Your task to perform on an android device: Do I have any events tomorrow? Image 0: 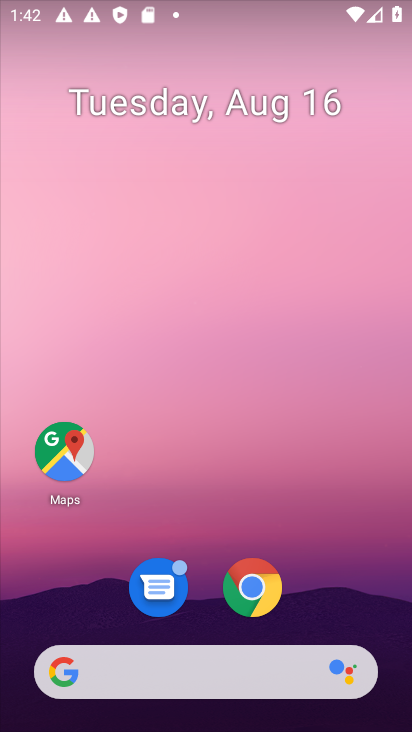
Step 0: drag from (200, 440) to (239, 2)
Your task to perform on an android device: Do I have any events tomorrow? Image 1: 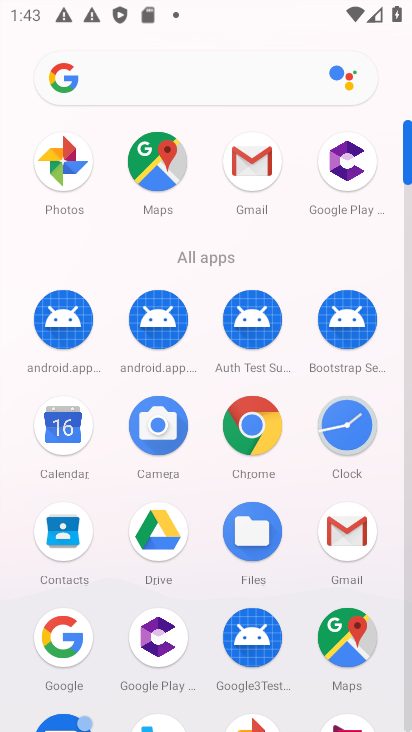
Step 1: click (74, 427)
Your task to perform on an android device: Do I have any events tomorrow? Image 2: 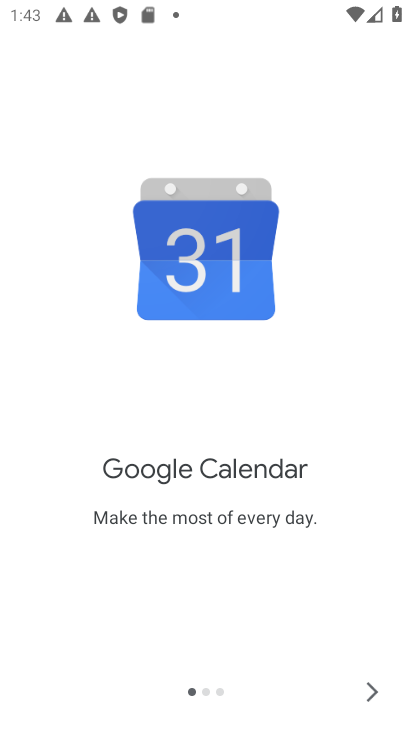
Step 2: click (353, 680)
Your task to perform on an android device: Do I have any events tomorrow? Image 3: 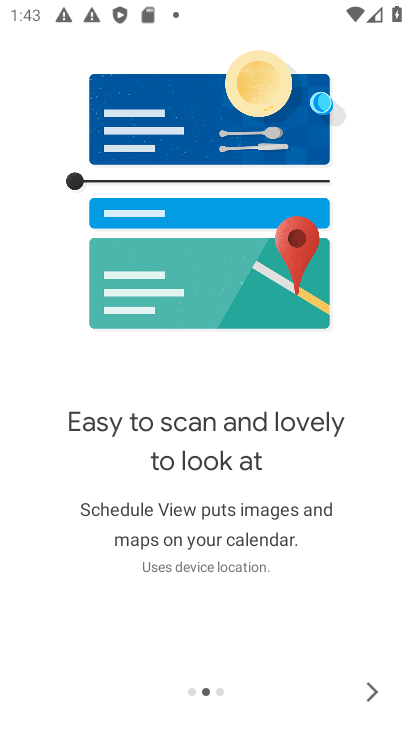
Step 3: click (367, 681)
Your task to perform on an android device: Do I have any events tomorrow? Image 4: 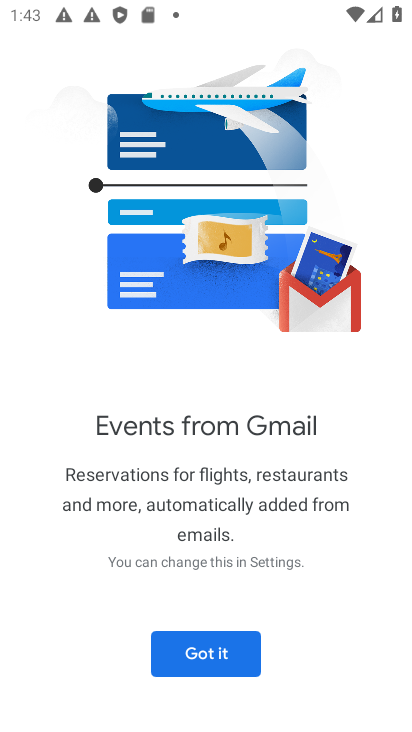
Step 4: click (367, 681)
Your task to perform on an android device: Do I have any events tomorrow? Image 5: 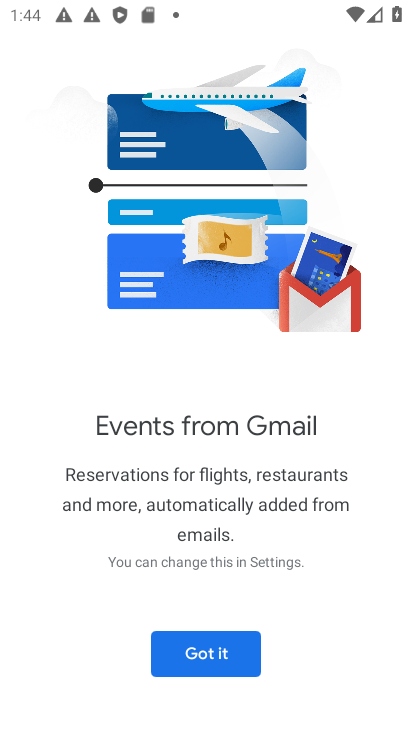
Step 5: click (238, 653)
Your task to perform on an android device: Do I have any events tomorrow? Image 6: 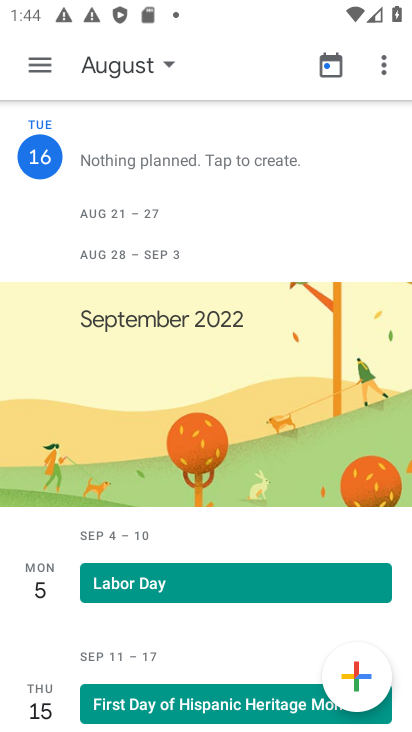
Step 6: task complete